Your task to perform on an android device: turn on location history Image 0: 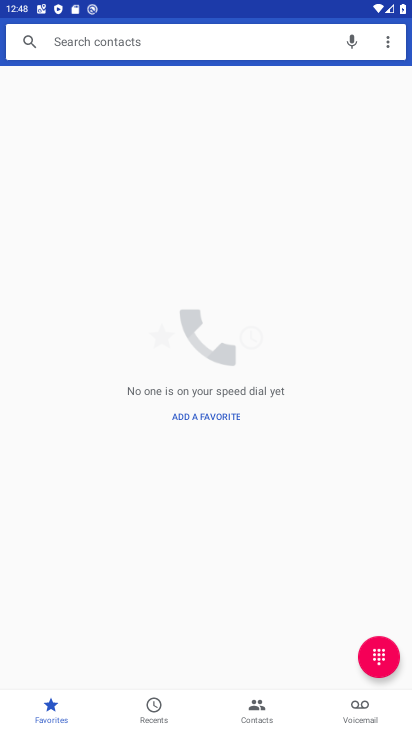
Step 0: press home button
Your task to perform on an android device: turn on location history Image 1: 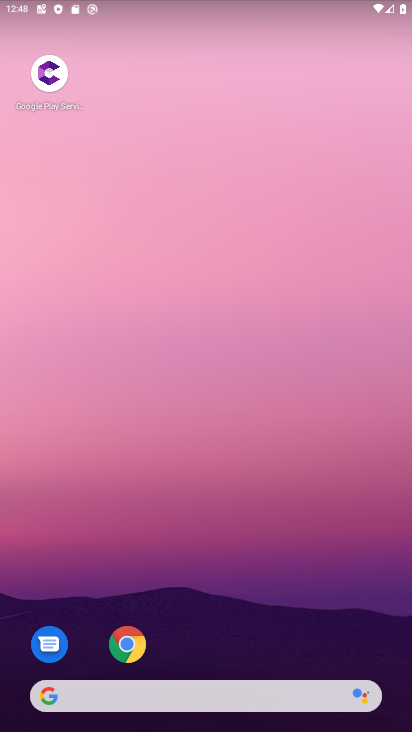
Step 1: drag from (213, 548) to (292, 81)
Your task to perform on an android device: turn on location history Image 2: 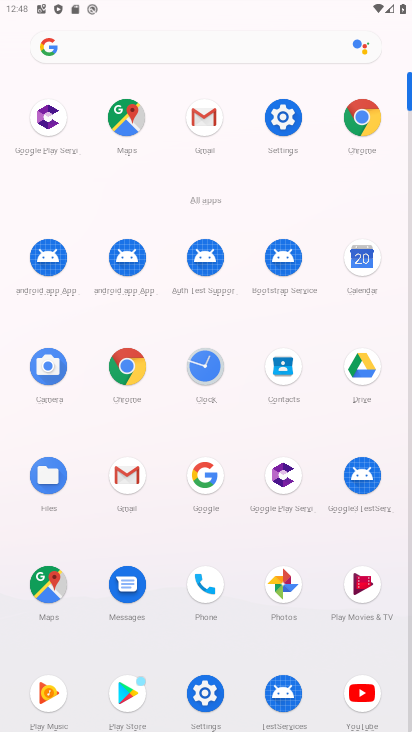
Step 2: click (199, 682)
Your task to perform on an android device: turn on location history Image 3: 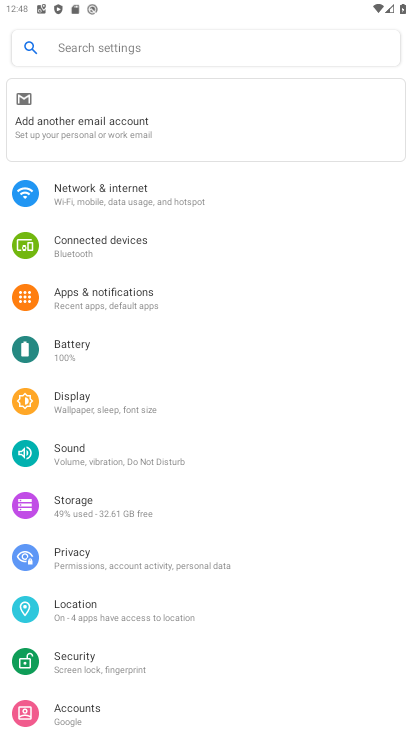
Step 3: drag from (165, 645) to (230, 215)
Your task to perform on an android device: turn on location history Image 4: 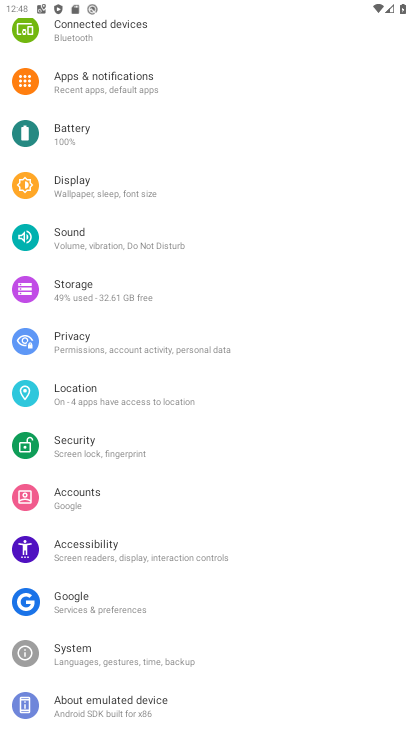
Step 4: drag from (183, 554) to (254, 194)
Your task to perform on an android device: turn on location history Image 5: 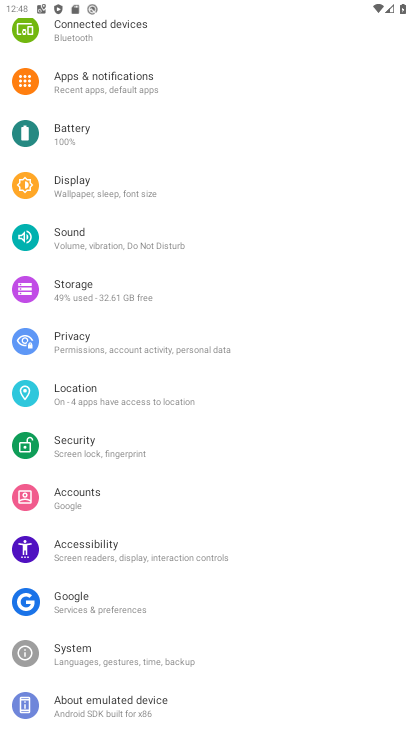
Step 5: click (124, 393)
Your task to perform on an android device: turn on location history Image 6: 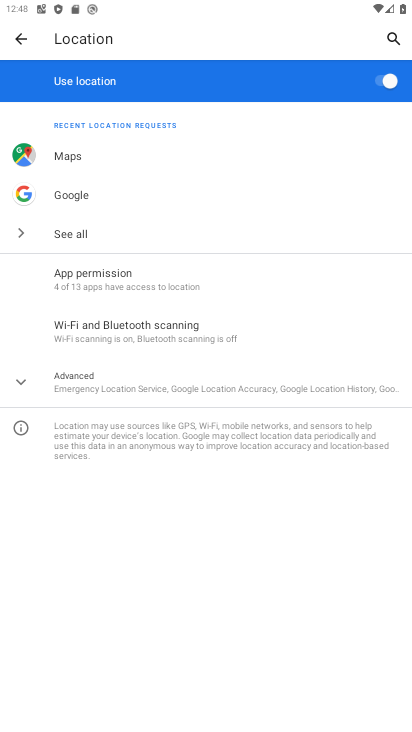
Step 6: click (91, 380)
Your task to perform on an android device: turn on location history Image 7: 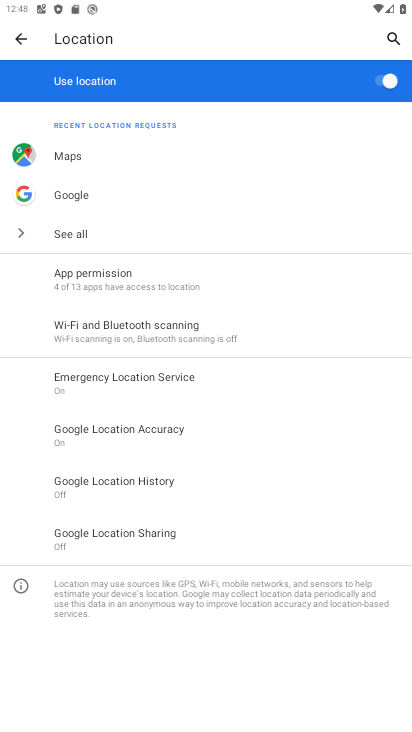
Step 7: click (143, 498)
Your task to perform on an android device: turn on location history Image 8: 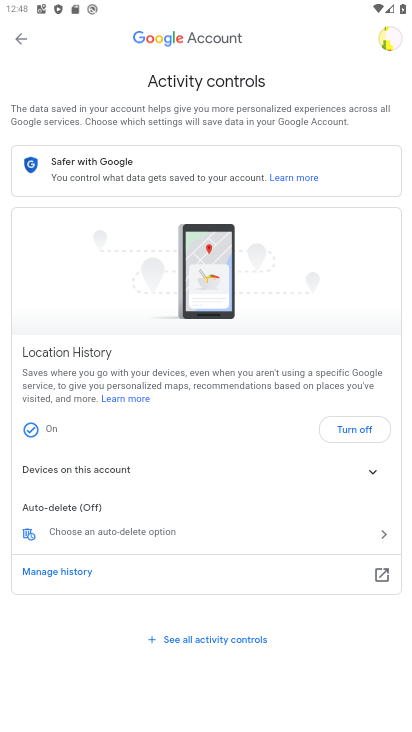
Step 8: task complete